Your task to perform on an android device: Is it going to rain this weekend? Image 0: 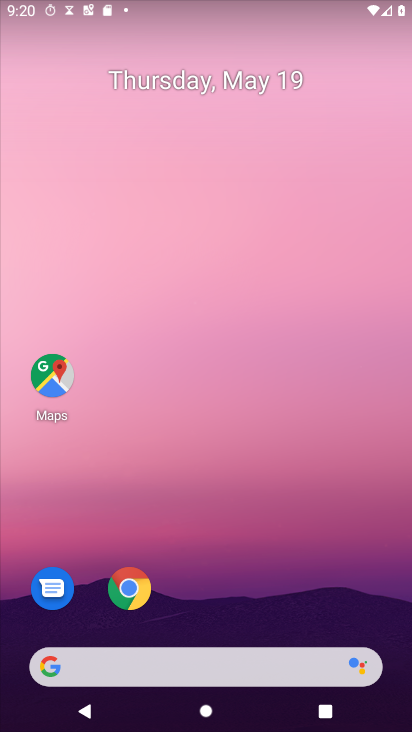
Step 0: click (53, 675)
Your task to perform on an android device: Is it going to rain this weekend? Image 1: 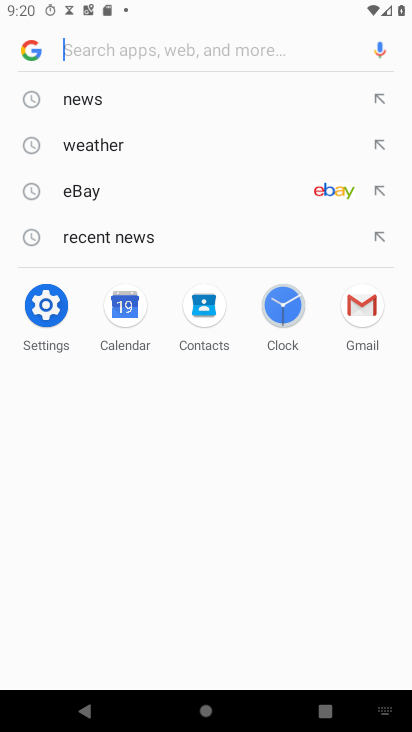
Step 1: click (110, 143)
Your task to perform on an android device: Is it going to rain this weekend? Image 2: 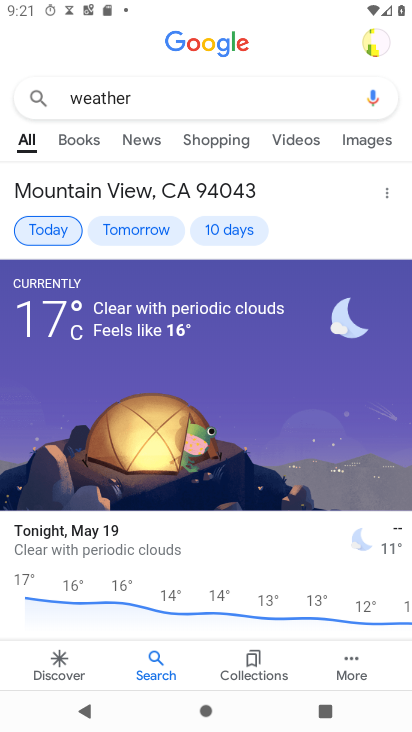
Step 2: click (248, 232)
Your task to perform on an android device: Is it going to rain this weekend? Image 3: 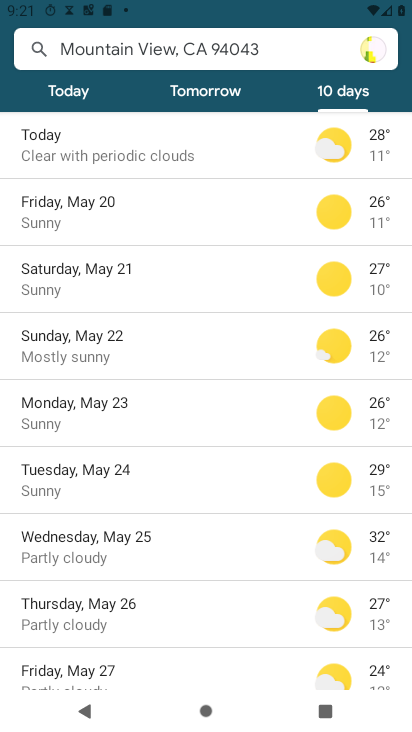
Step 3: click (103, 288)
Your task to perform on an android device: Is it going to rain this weekend? Image 4: 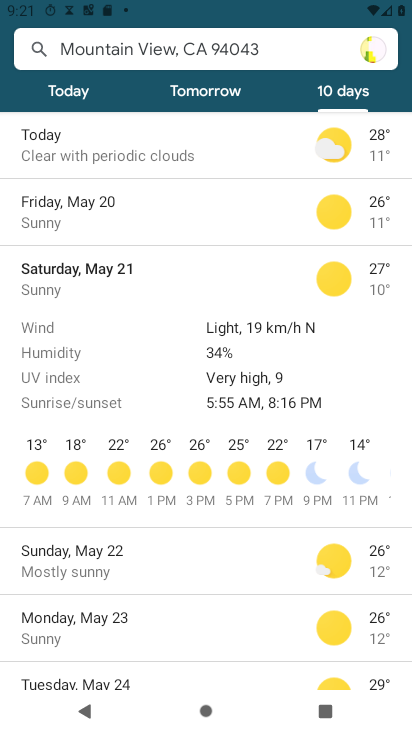
Step 4: task complete